Your task to perform on an android device: Go to display settings Image 0: 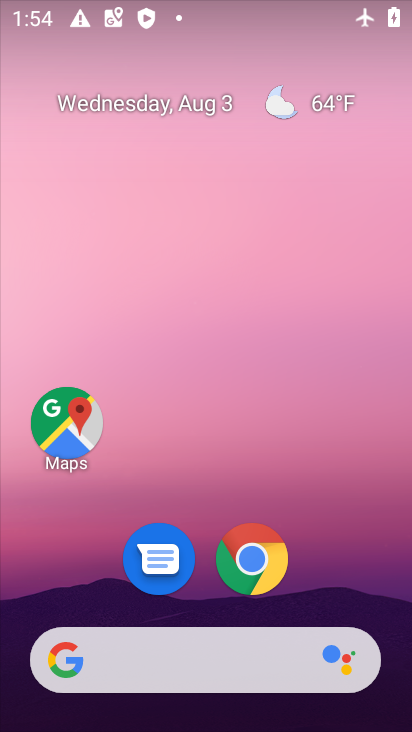
Step 0: drag from (204, 676) to (216, 18)
Your task to perform on an android device: Go to display settings Image 1: 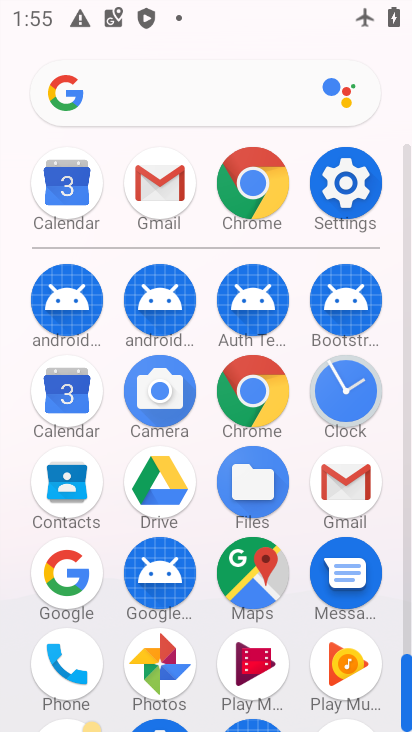
Step 1: click (343, 182)
Your task to perform on an android device: Go to display settings Image 2: 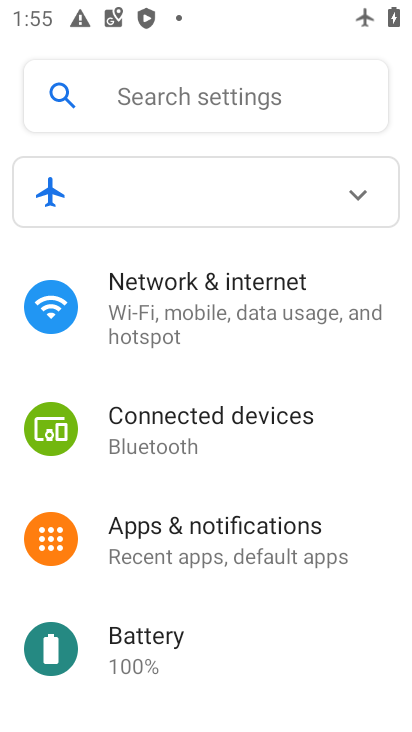
Step 2: drag from (150, 679) to (161, 283)
Your task to perform on an android device: Go to display settings Image 3: 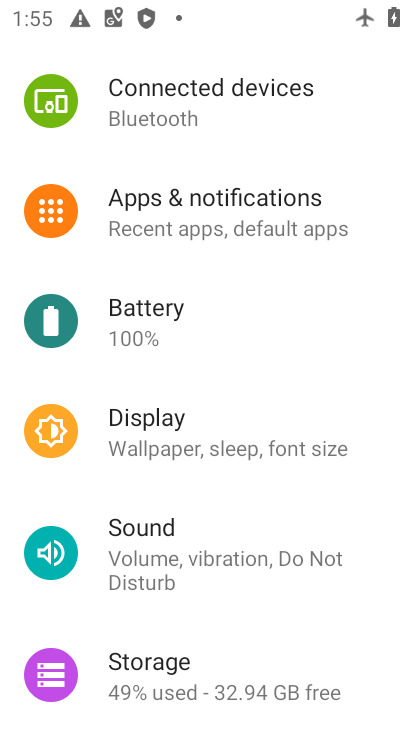
Step 3: click (138, 429)
Your task to perform on an android device: Go to display settings Image 4: 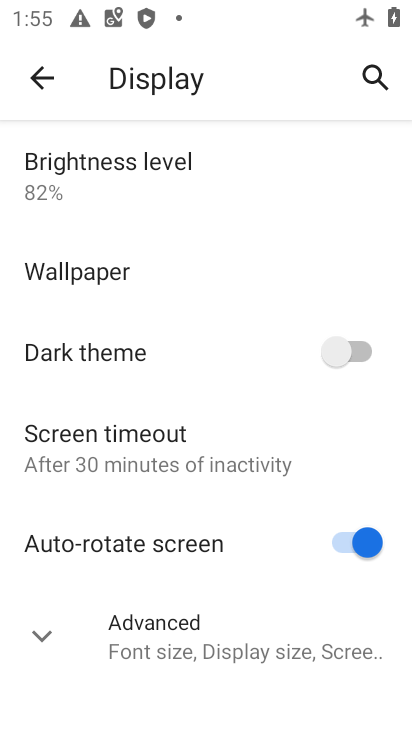
Step 4: task complete